Your task to perform on an android device: refresh tabs in the chrome app Image 0: 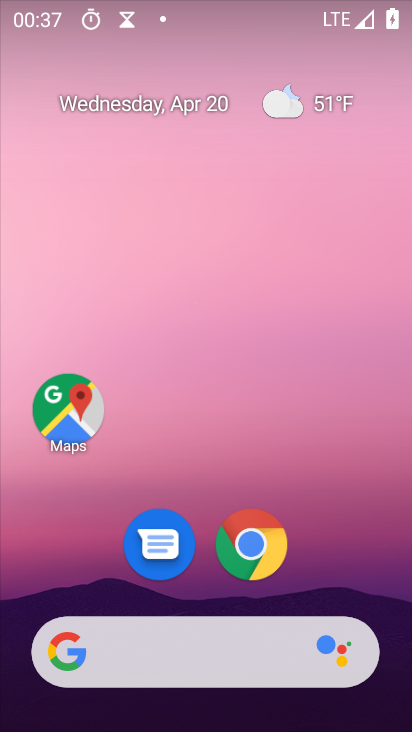
Step 0: click (255, 527)
Your task to perform on an android device: refresh tabs in the chrome app Image 1: 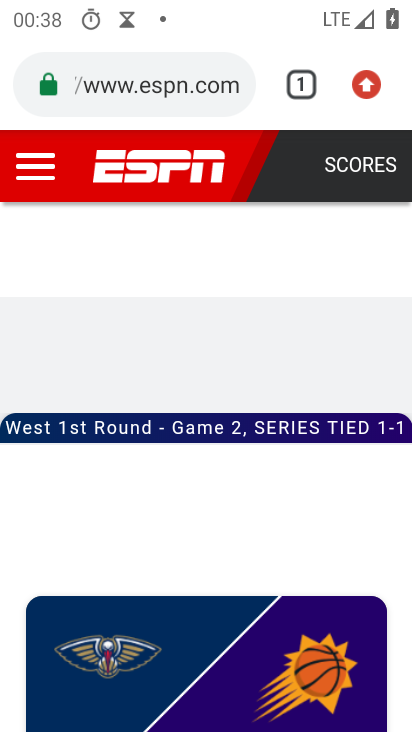
Step 1: click (378, 77)
Your task to perform on an android device: refresh tabs in the chrome app Image 2: 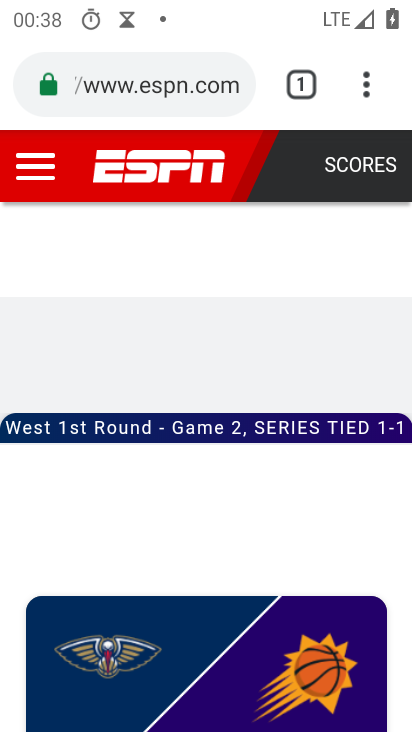
Step 2: click (375, 79)
Your task to perform on an android device: refresh tabs in the chrome app Image 3: 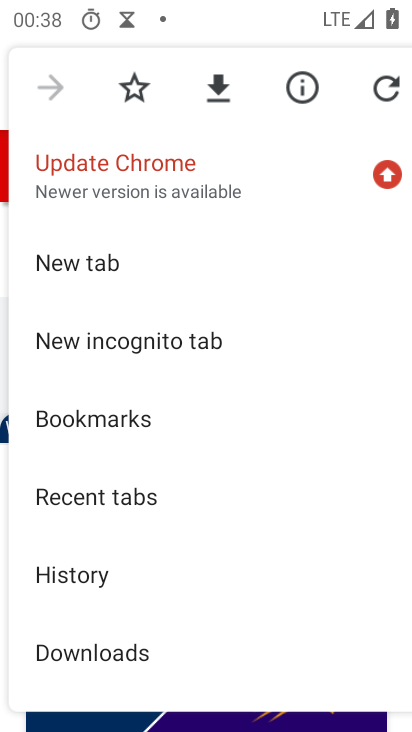
Step 3: click (371, 90)
Your task to perform on an android device: refresh tabs in the chrome app Image 4: 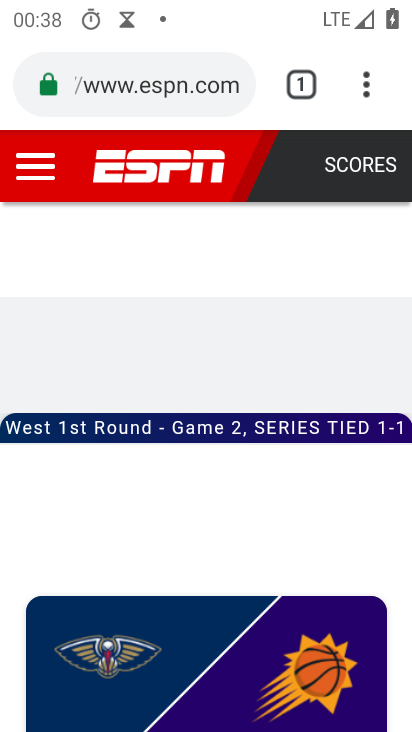
Step 4: task complete